Your task to perform on an android device: search for starred emails in the gmail app Image 0: 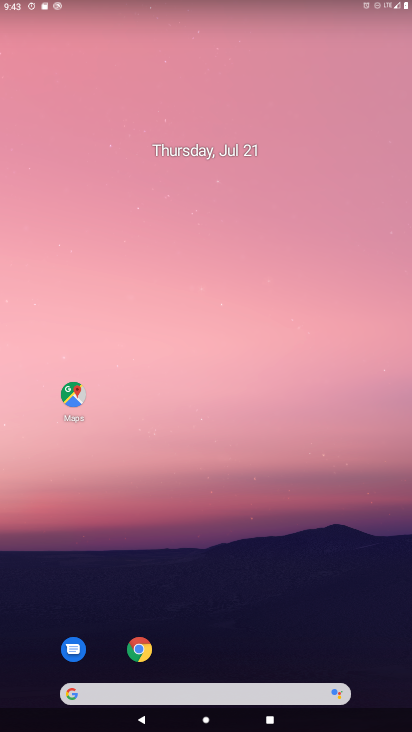
Step 0: drag from (365, 631) to (193, 179)
Your task to perform on an android device: search for starred emails in the gmail app Image 1: 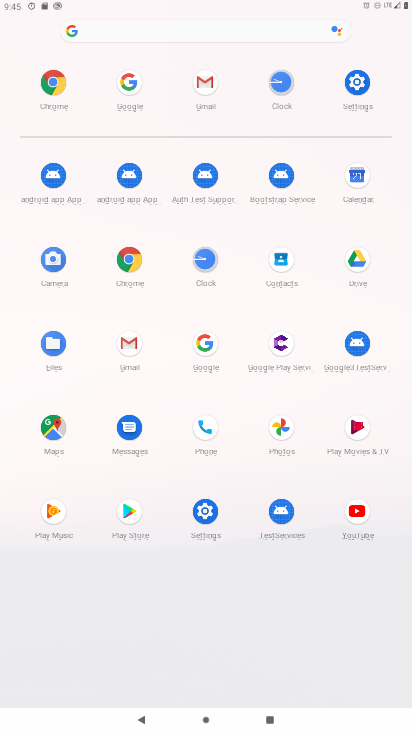
Step 1: click (127, 356)
Your task to perform on an android device: search for starred emails in the gmail app Image 2: 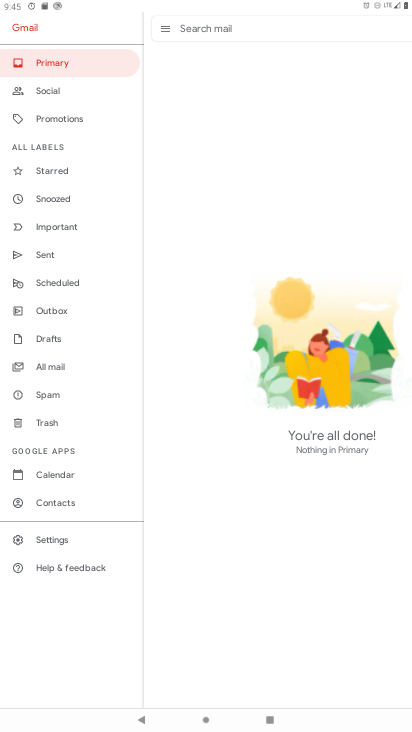
Step 2: click (58, 170)
Your task to perform on an android device: search for starred emails in the gmail app Image 3: 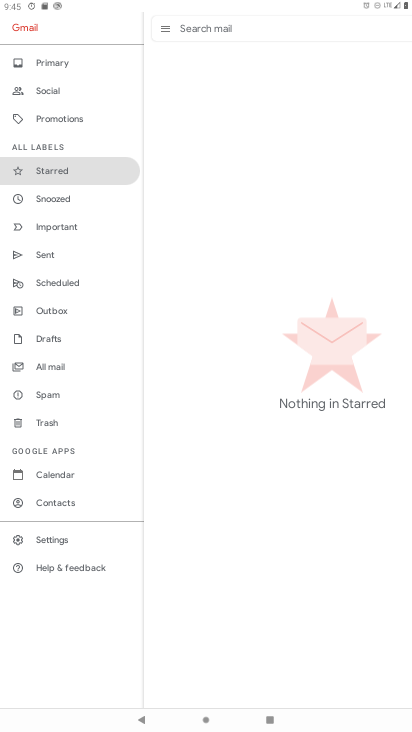
Step 3: task complete